Your task to perform on an android device: turn off javascript in the chrome app Image 0: 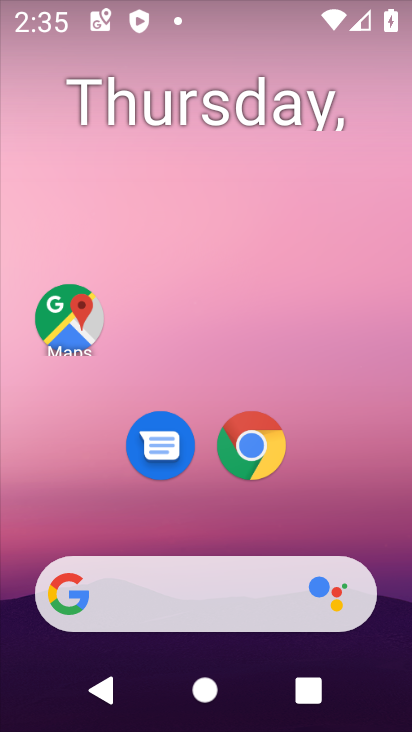
Step 0: press home button
Your task to perform on an android device: turn off javascript in the chrome app Image 1: 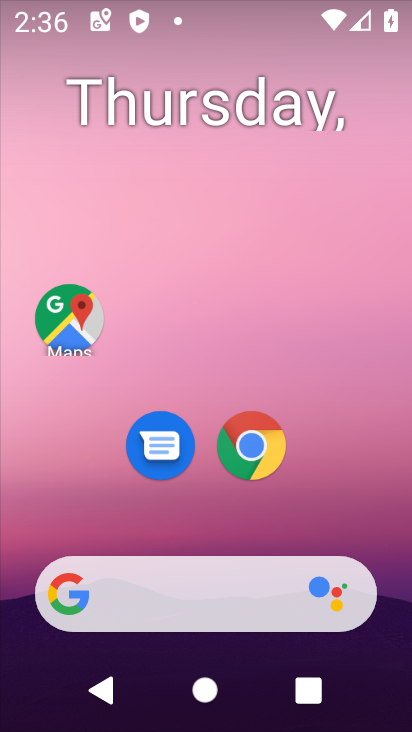
Step 1: click (258, 447)
Your task to perform on an android device: turn off javascript in the chrome app Image 2: 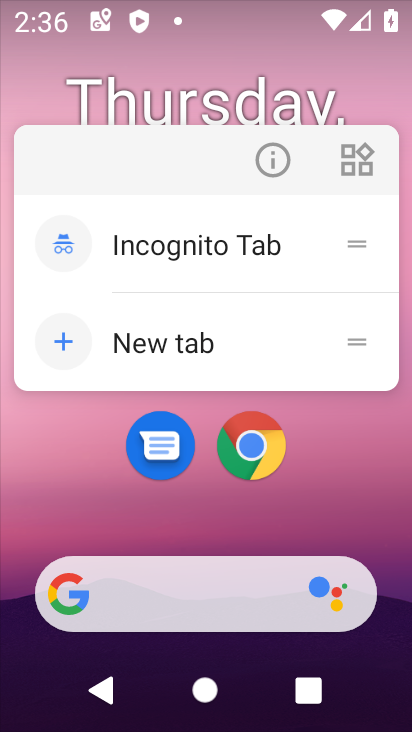
Step 2: click (257, 443)
Your task to perform on an android device: turn off javascript in the chrome app Image 3: 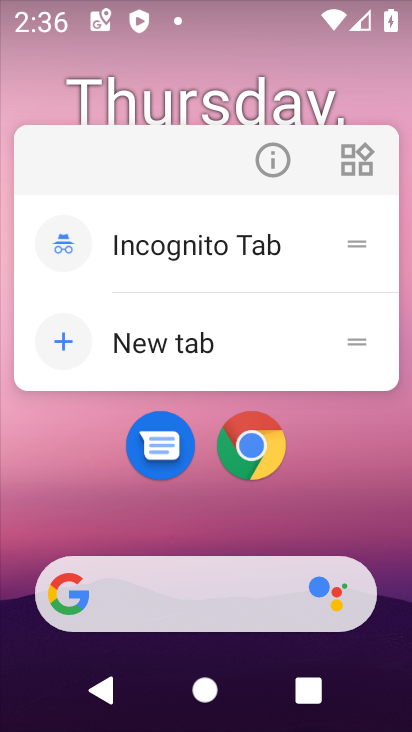
Step 3: click (253, 443)
Your task to perform on an android device: turn off javascript in the chrome app Image 4: 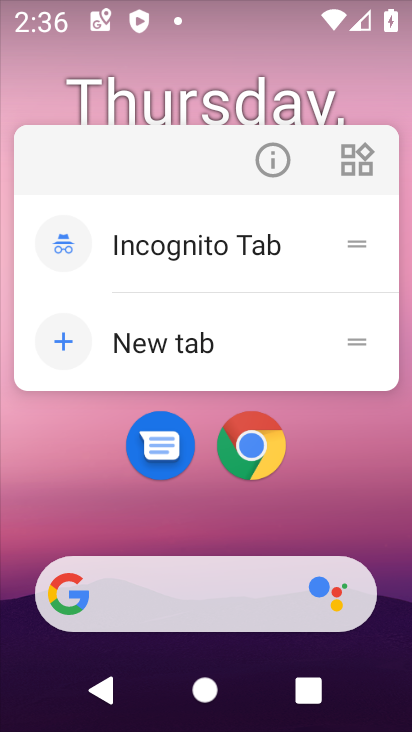
Step 4: click (239, 440)
Your task to perform on an android device: turn off javascript in the chrome app Image 5: 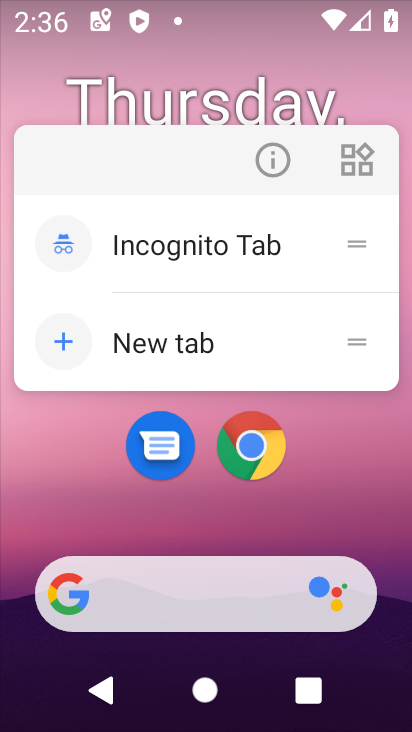
Step 5: click (245, 446)
Your task to perform on an android device: turn off javascript in the chrome app Image 6: 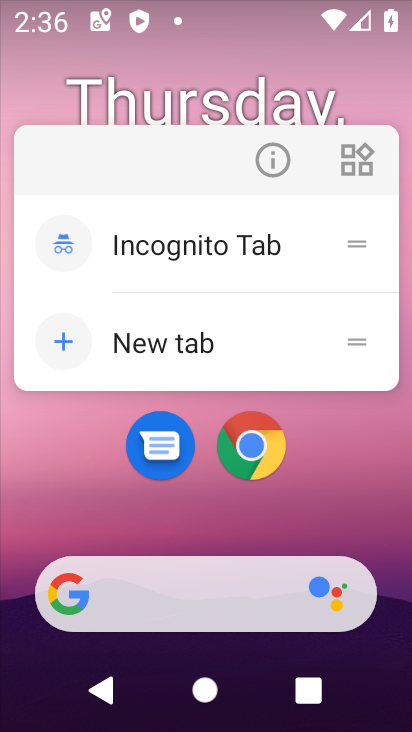
Step 6: click (249, 435)
Your task to perform on an android device: turn off javascript in the chrome app Image 7: 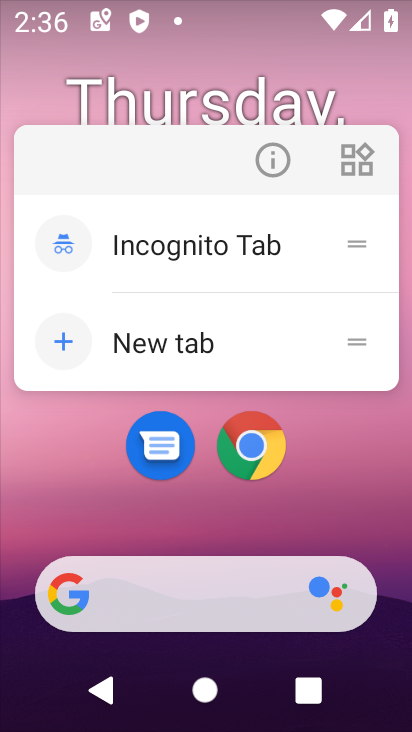
Step 7: click (260, 444)
Your task to perform on an android device: turn off javascript in the chrome app Image 8: 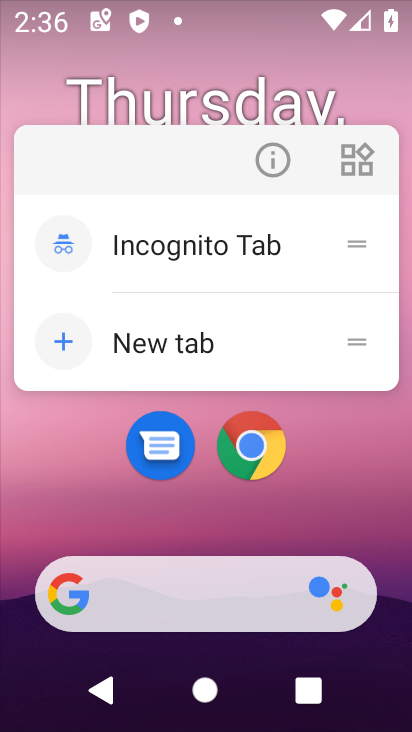
Step 8: click (260, 436)
Your task to perform on an android device: turn off javascript in the chrome app Image 9: 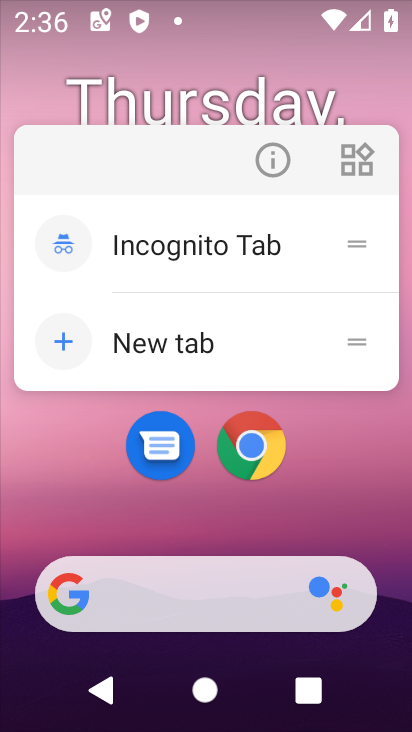
Step 9: click (257, 439)
Your task to perform on an android device: turn off javascript in the chrome app Image 10: 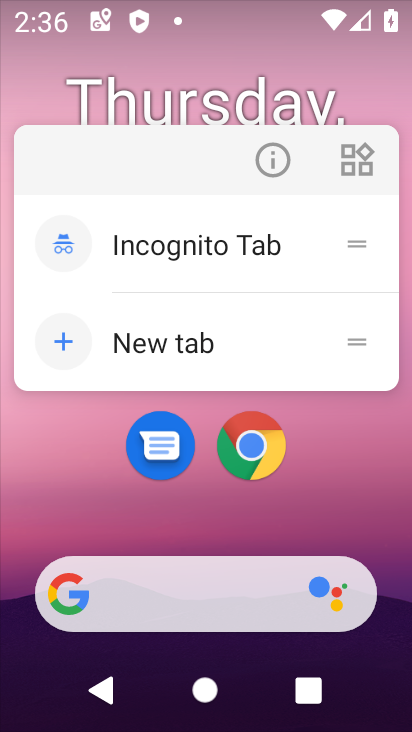
Step 10: click (245, 465)
Your task to perform on an android device: turn off javascript in the chrome app Image 11: 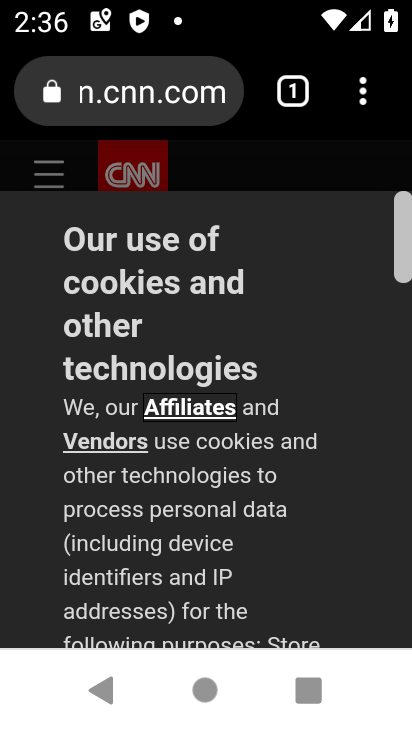
Step 11: click (357, 90)
Your task to perform on an android device: turn off javascript in the chrome app Image 12: 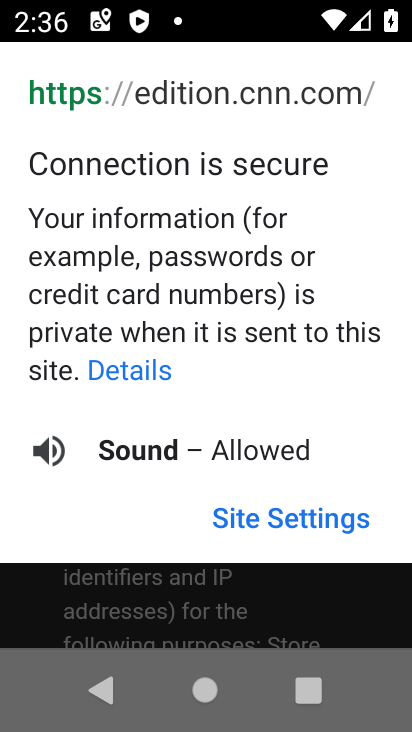
Step 12: press back button
Your task to perform on an android device: turn off javascript in the chrome app Image 13: 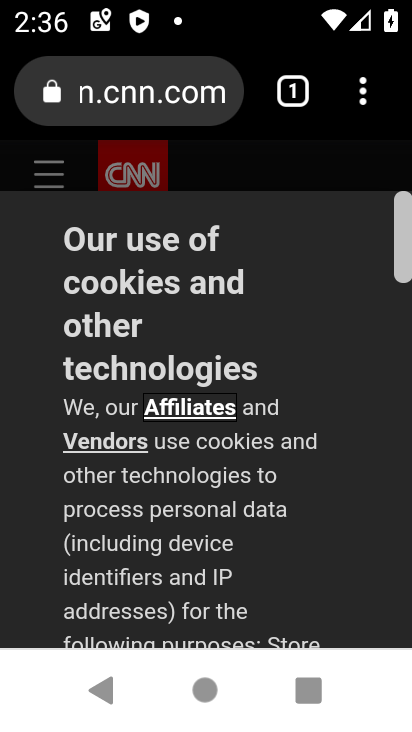
Step 13: click (372, 99)
Your task to perform on an android device: turn off javascript in the chrome app Image 14: 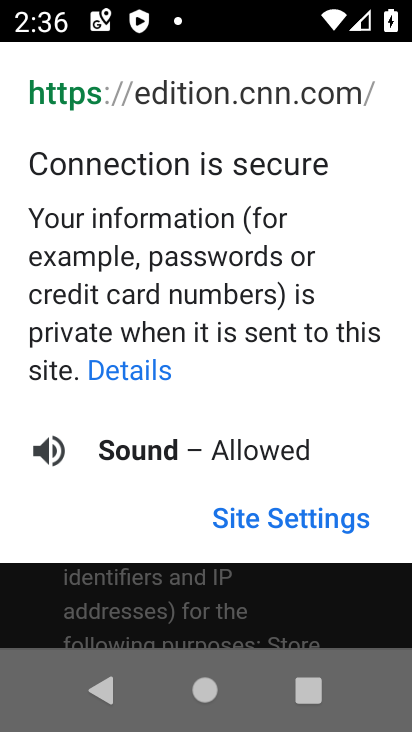
Step 14: press back button
Your task to perform on an android device: turn off javascript in the chrome app Image 15: 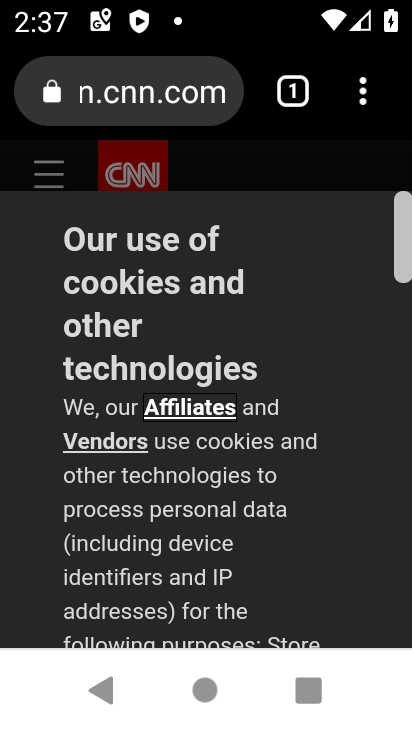
Step 15: click (353, 84)
Your task to perform on an android device: turn off javascript in the chrome app Image 16: 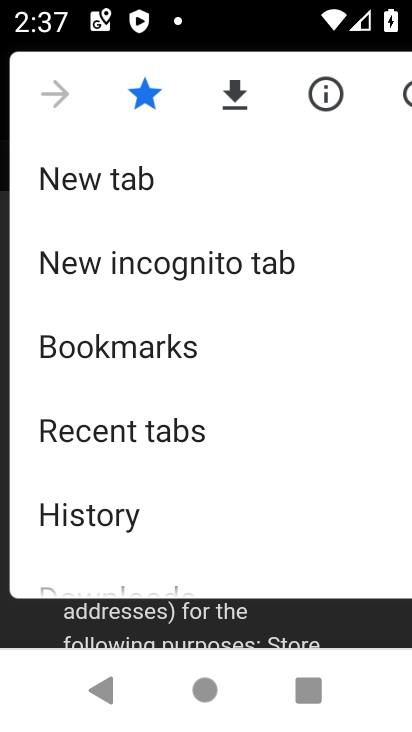
Step 16: drag from (71, 567) to (252, 110)
Your task to perform on an android device: turn off javascript in the chrome app Image 17: 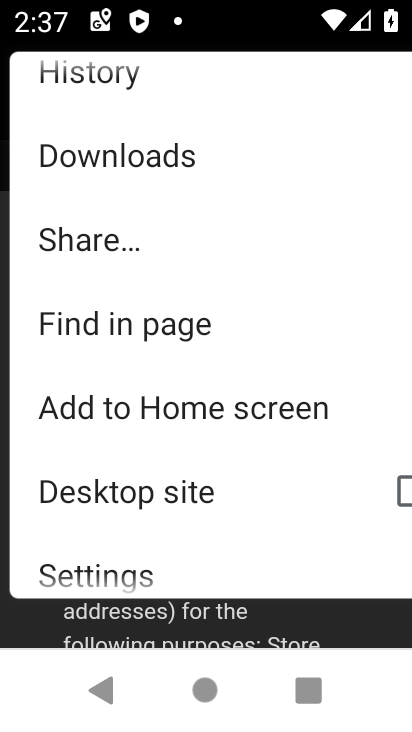
Step 17: drag from (137, 510) to (227, 167)
Your task to perform on an android device: turn off javascript in the chrome app Image 18: 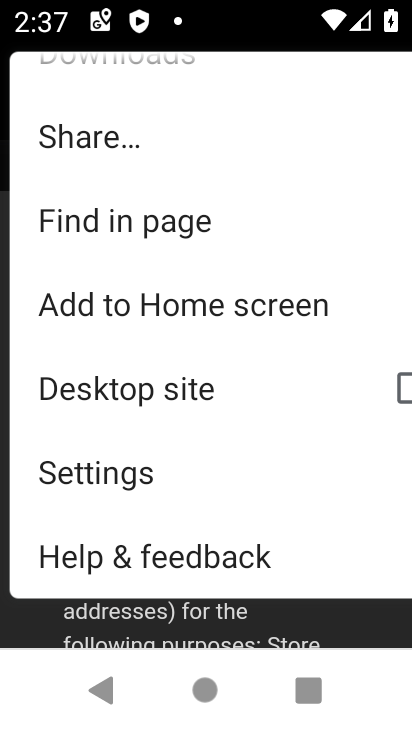
Step 18: click (119, 460)
Your task to perform on an android device: turn off javascript in the chrome app Image 19: 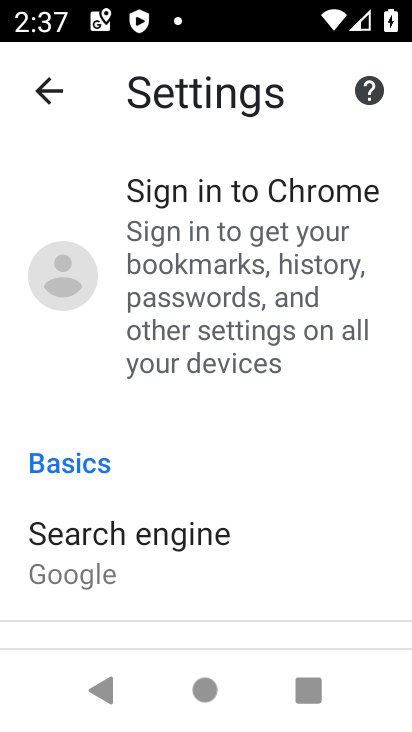
Step 19: drag from (16, 536) to (161, 240)
Your task to perform on an android device: turn off javascript in the chrome app Image 20: 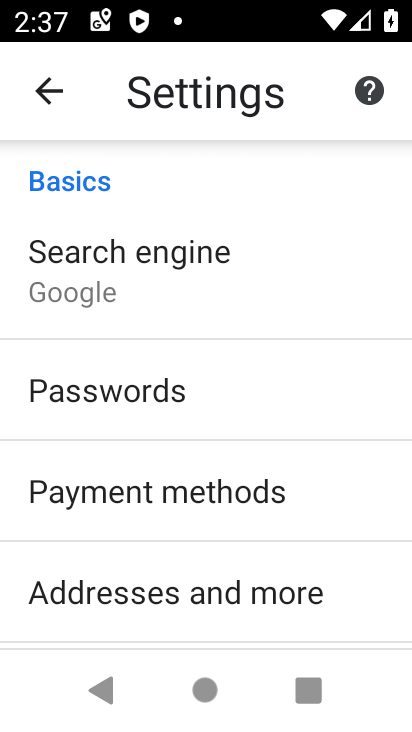
Step 20: drag from (43, 475) to (161, 271)
Your task to perform on an android device: turn off javascript in the chrome app Image 21: 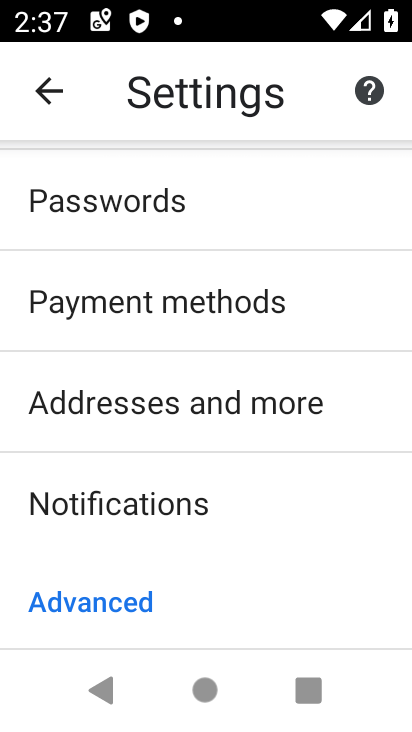
Step 21: drag from (38, 471) to (223, 201)
Your task to perform on an android device: turn off javascript in the chrome app Image 22: 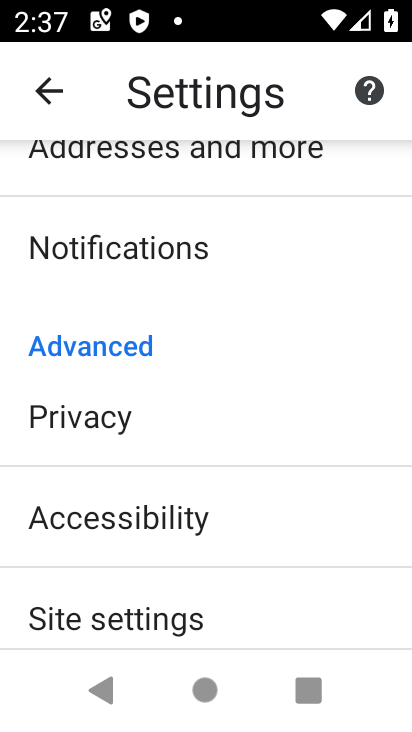
Step 22: click (140, 614)
Your task to perform on an android device: turn off javascript in the chrome app Image 23: 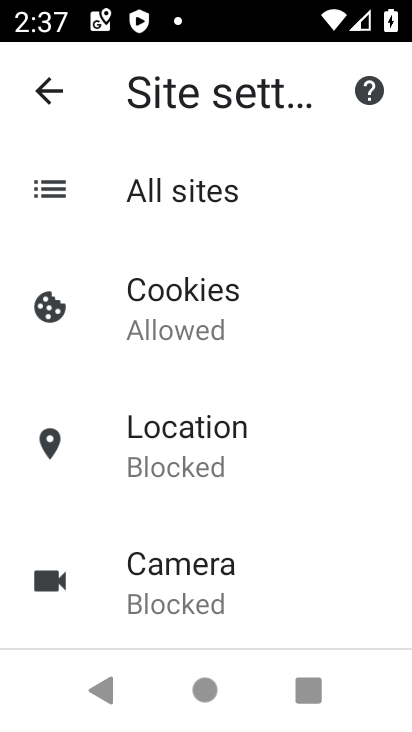
Step 23: drag from (55, 665) to (279, 195)
Your task to perform on an android device: turn off javascript in the chrome app Image 24: 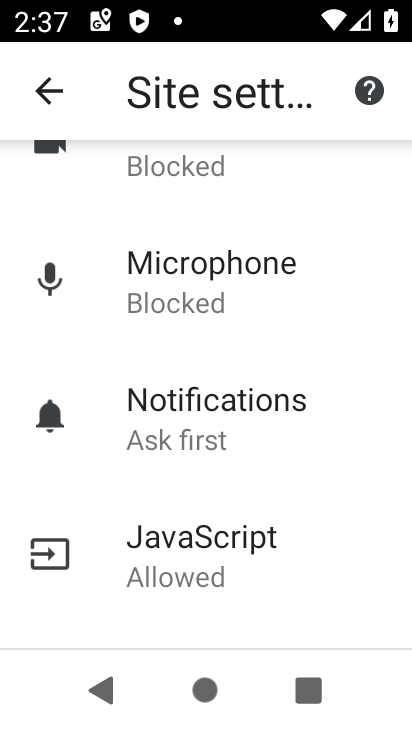
Step 24: click (61, 560)
Your task to perform on an android device: turn off javascript in the chrome app Image 25: 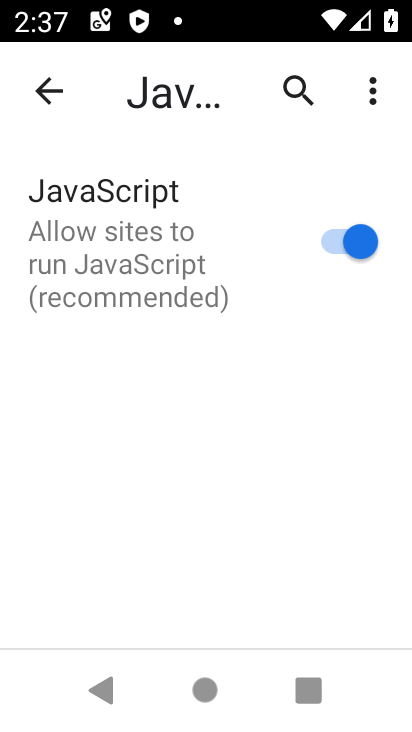
Step 25: click (358, 247)
Your task to perform on an android device: turn off javascript in the chrome app Image 26: 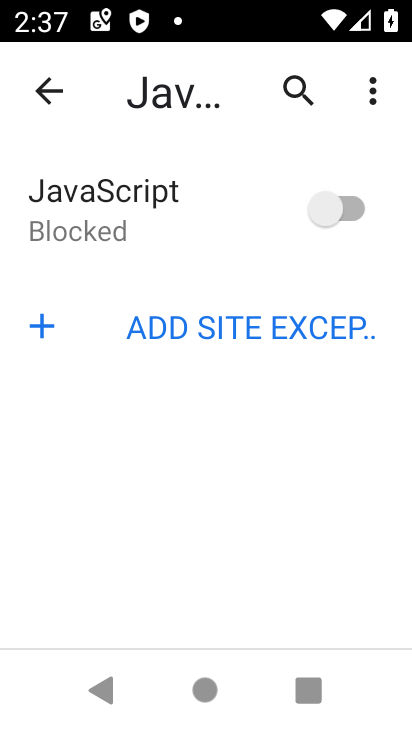
Step 26: task complete